Your task to perform on an android device: all mails in gmail Image 0: 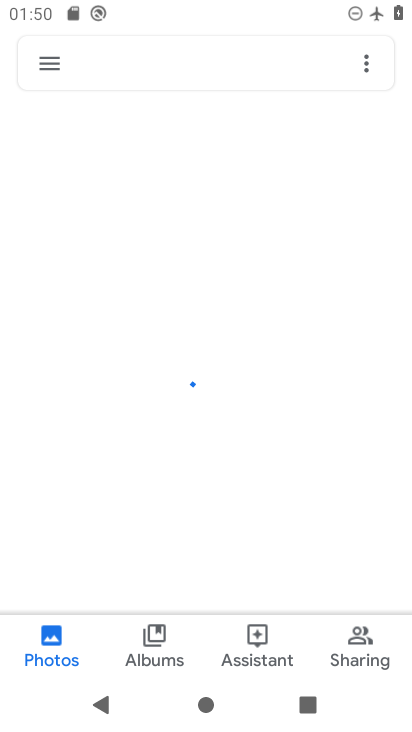
Step 0: press home button
Your task to perform on an android device: all mails in gmail Image 1: 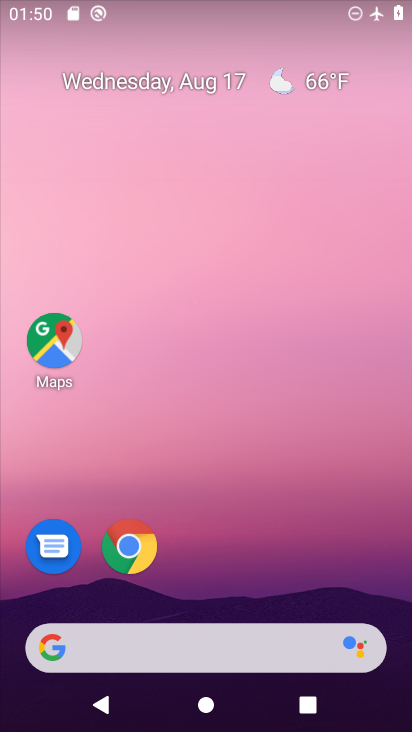
Step 1: drag from (232, 594) to (236, 124)
Your task to perform on an android device: all mails in gmail Image 2: 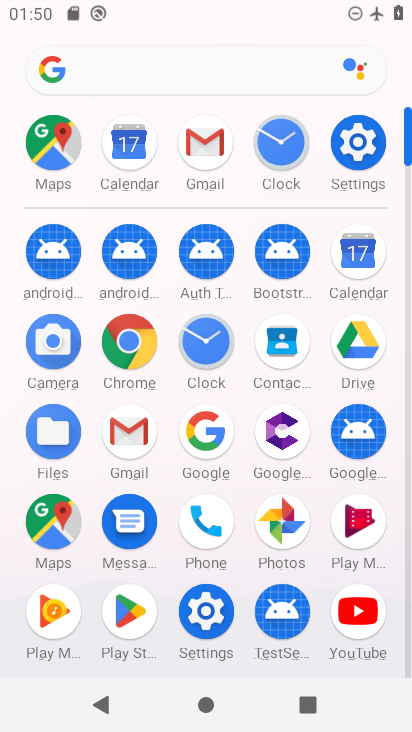
Step 2: click (203, 143)
Your task to perform on an android device: all mails in gmail Image 3: 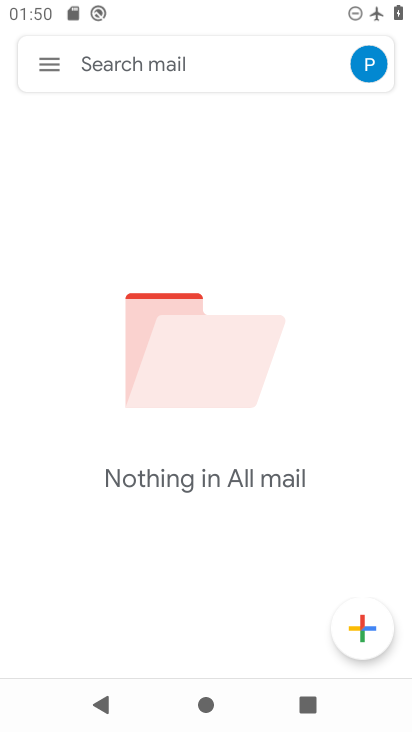
Step 3: click (42, 60)
Your task to perform on an android device: all mails in gmail Image 4: 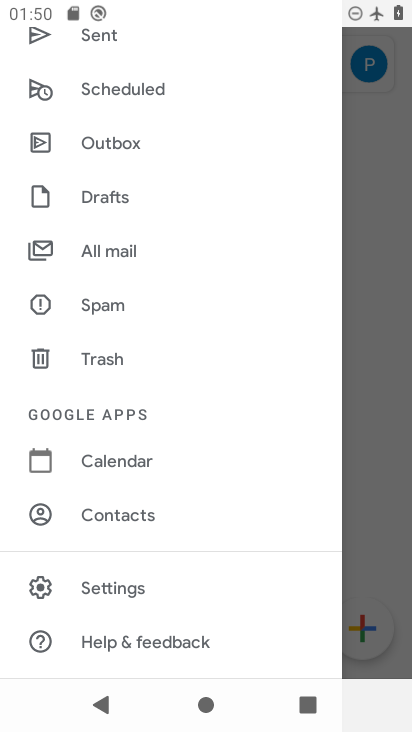
Step 4: click (94, 242)
Your task to perform on an android device: all mails in gmail Image 5: 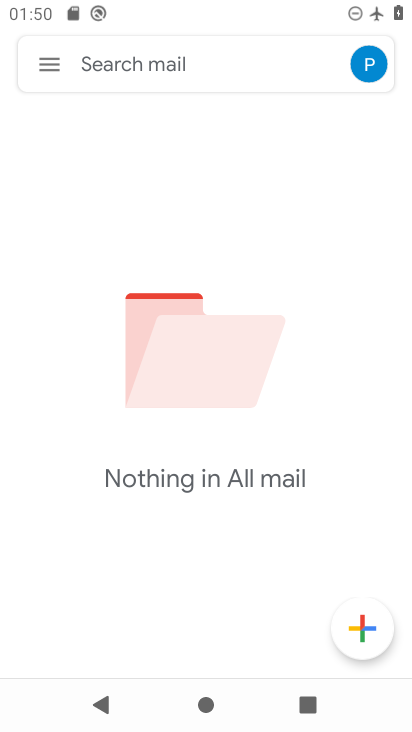
Step 5: task complete